Your task to perform on an android device: Open Google Chrome and open the bookmarks view Image 0: 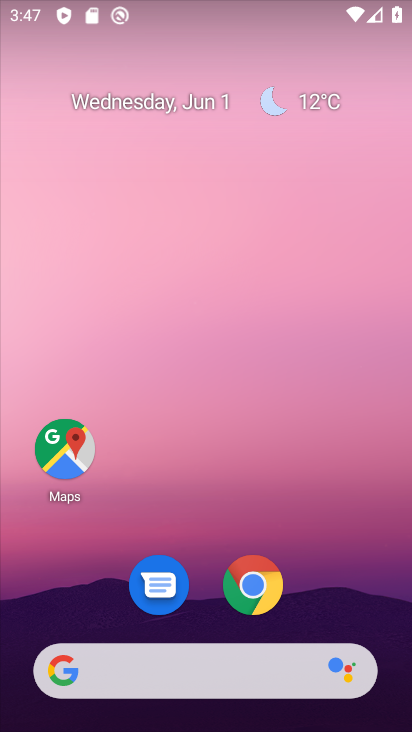
Step 0: click (261, 568)
Your task to perform on an android device: Open Google Chrome and open the bookmarks view Image 1: 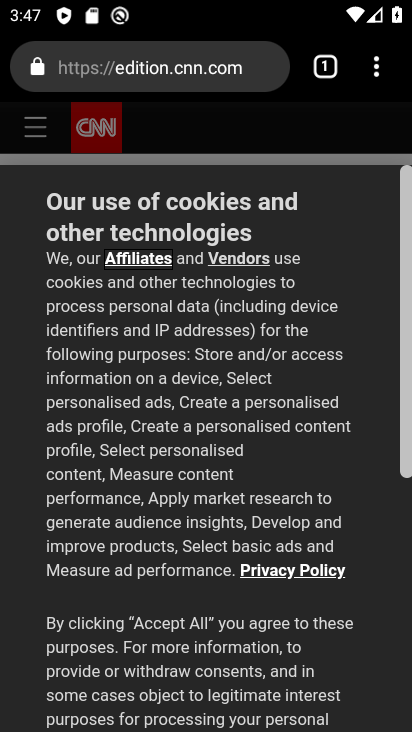
Step 1: click (375, 82)
Your task to perform on an android device: Open Google Chrome and open the bookmarks view Image 2: 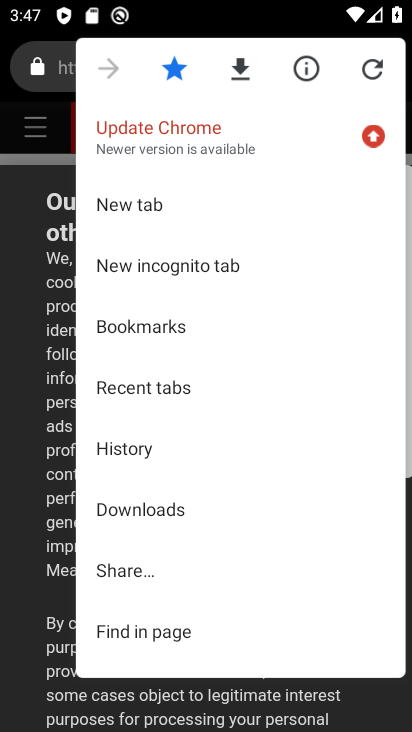
Step 2: click (175, 323)
Your task to perform on an android device: Open Google Chrome and open the bookmarks view Image 3: 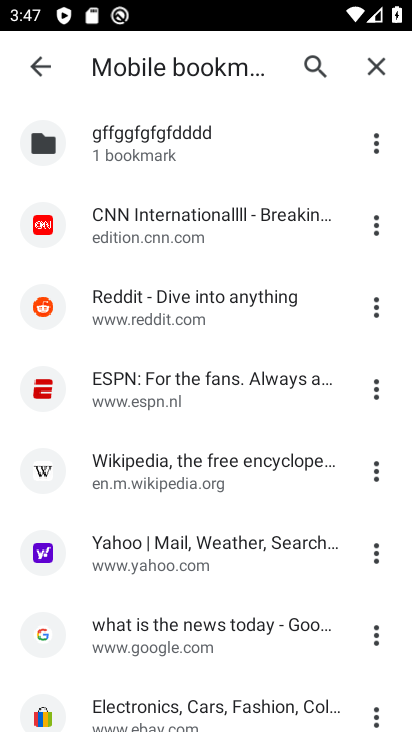
Step 3: task complete